Your task to perform on an android device: open app "ColorNote Notepad Notes" Image 0: 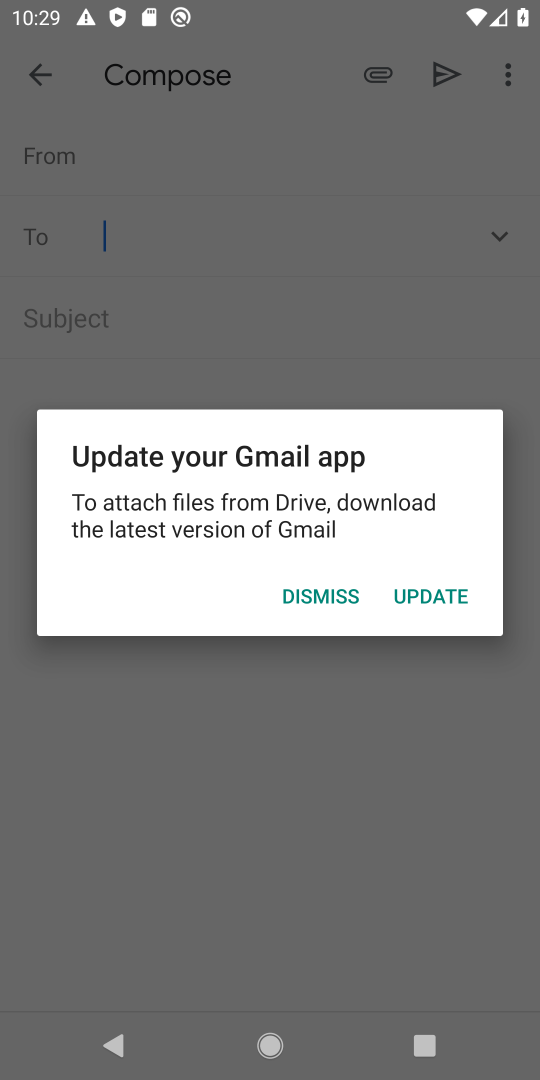
Step 0: click (410, 598)
Your task to perform on an android device: open app "ColorNote Notepad Notes" Image 1: 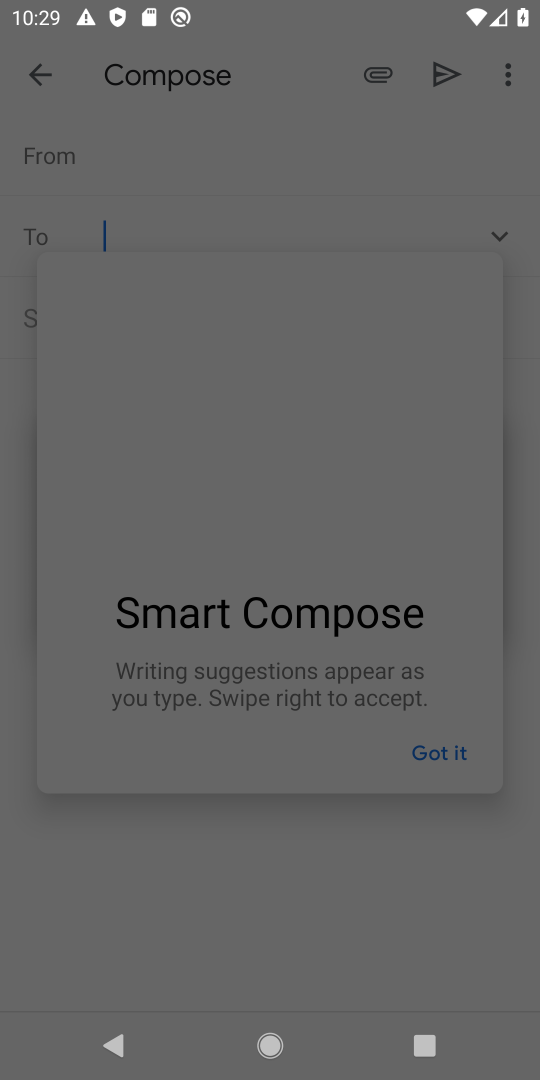
Step 1: press home button
Your task to perform on an android device: open app "ColorNote Notepad Notes" Image 2: 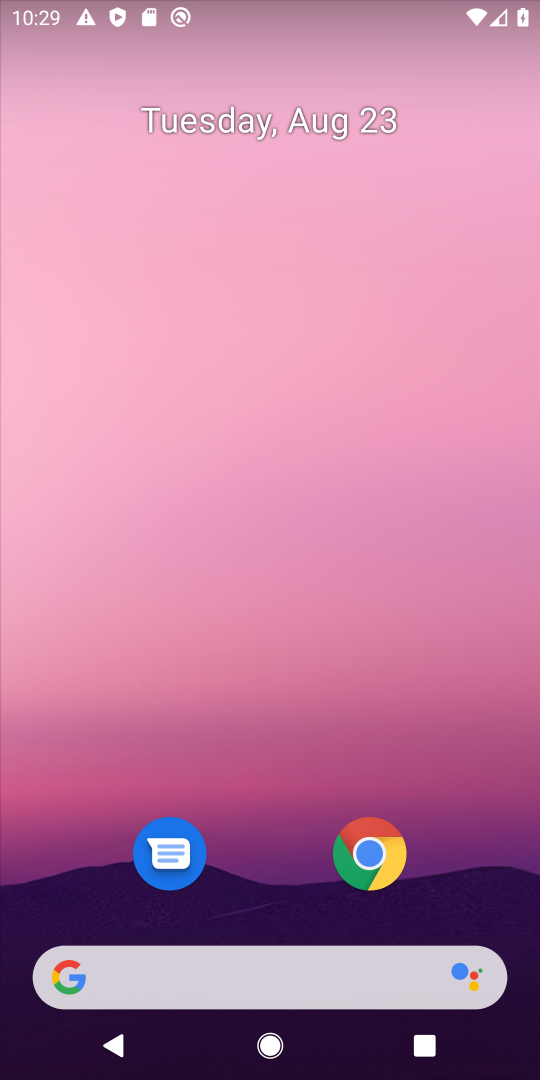
Step 2: drag from (170, 829) to (0, 366)
Your task to perform on an android device: open app "ColorNote Notepad Notes" Image 3: 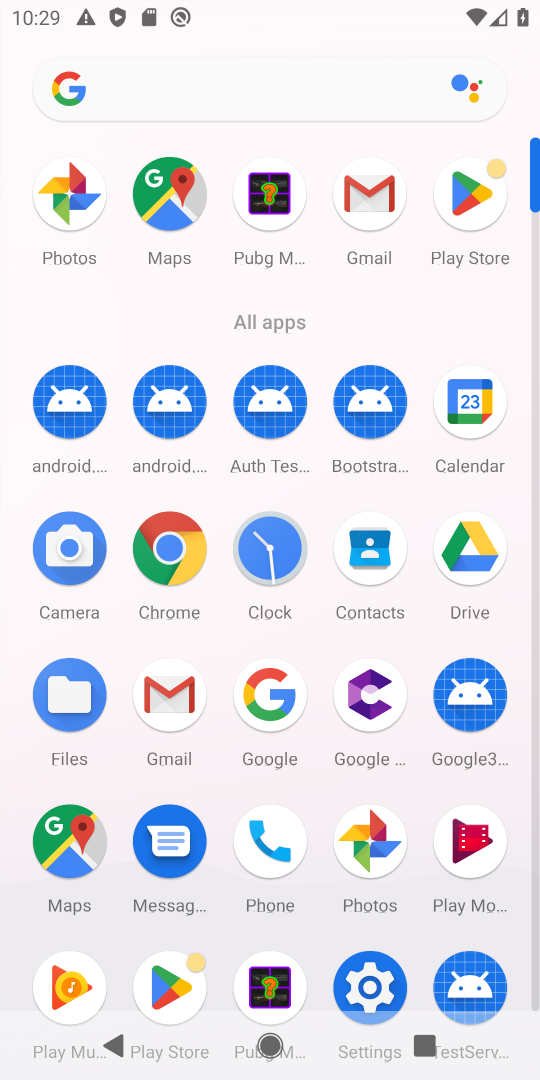
Step 3: click (483, 219)
Your task to perform on an android device: open app "ColorNote Notepad Notes" Image 4: 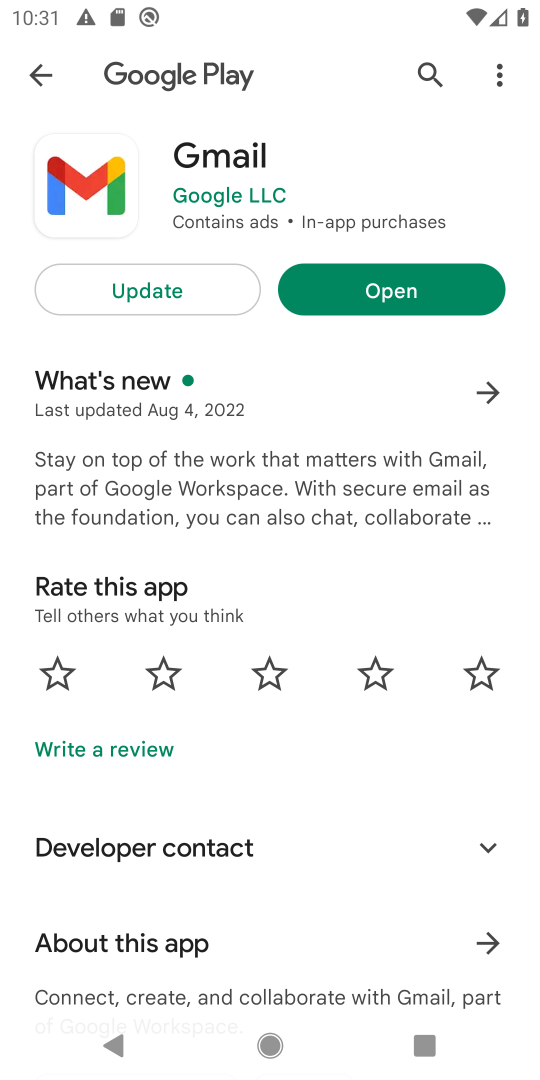
Step 4: press back button
Your task to perform on an android device: open app "ColorNote Notepad Notes" Image 5: 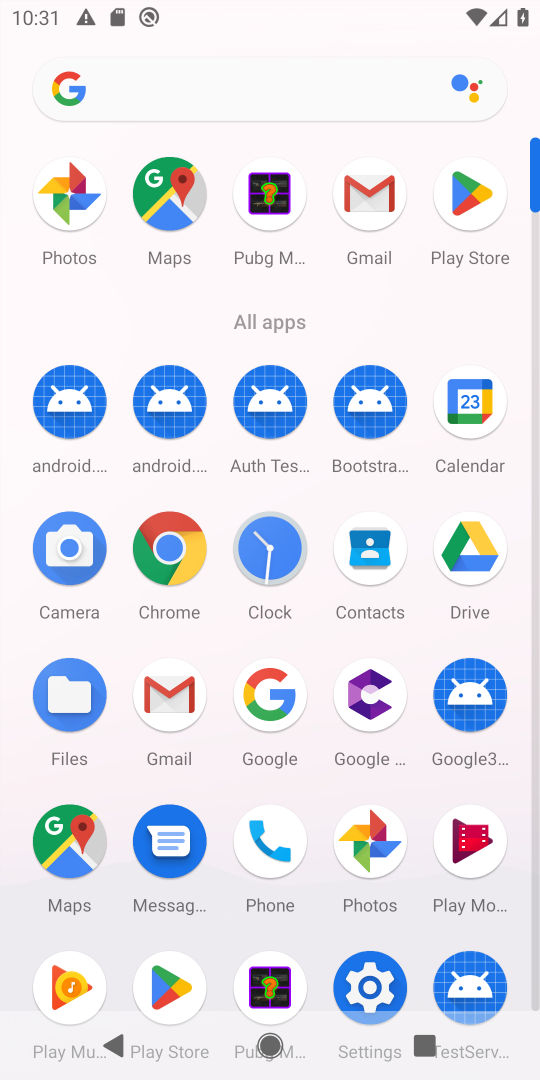
Step 5: click (471, 190)
Your task to perform on an android device: open app "ColorNote Notepad Notes" Image 6: 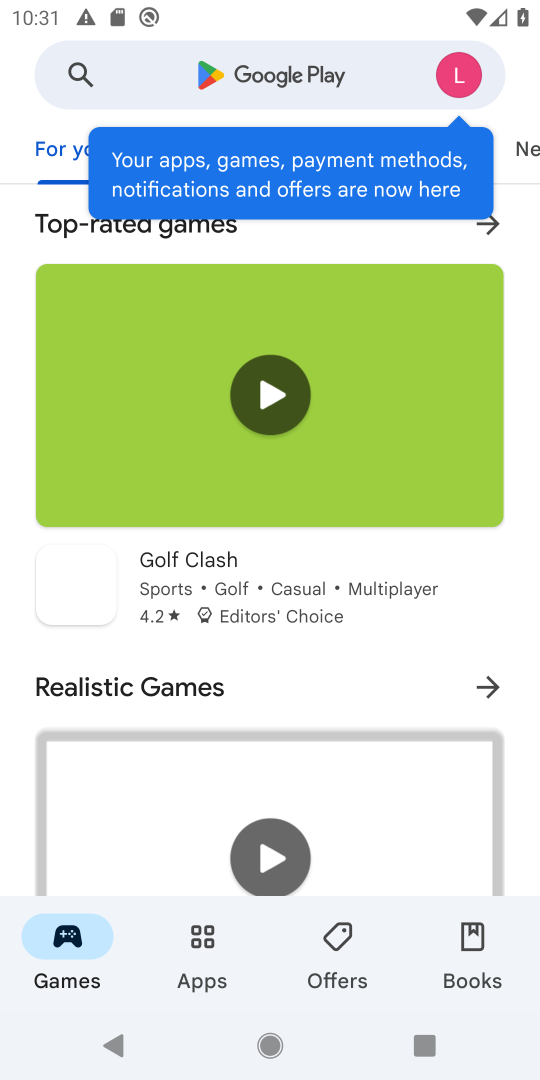
Step 6: click (241, 92)
Your task to perform on an android device: open app "ColorNote Notepad Notes" Image 7: 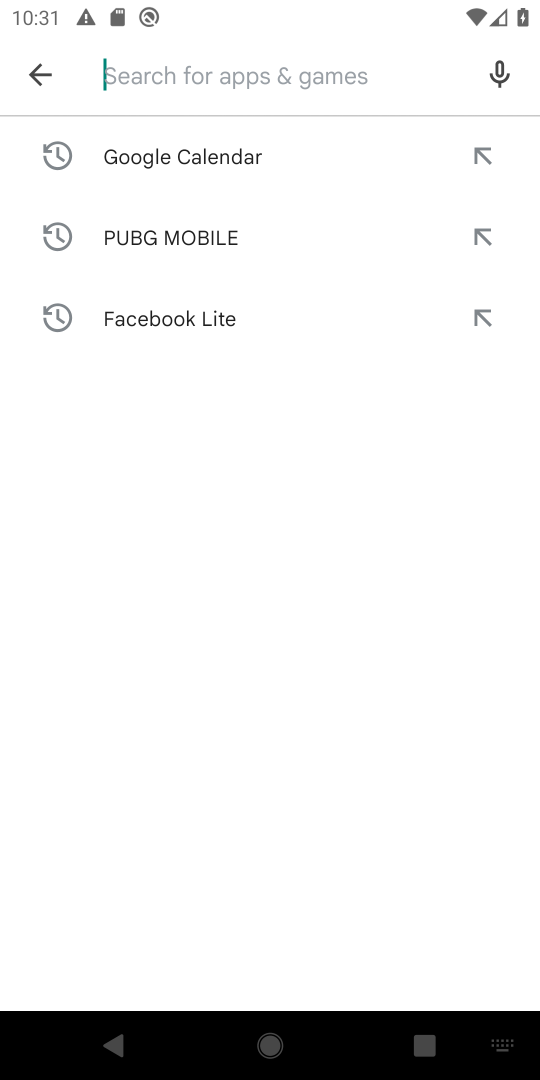
Step 7: type "ColorNote Notepad Notes"
Your task to perform on an android device: open app "ColorNote Notepad Notes" Image 8: 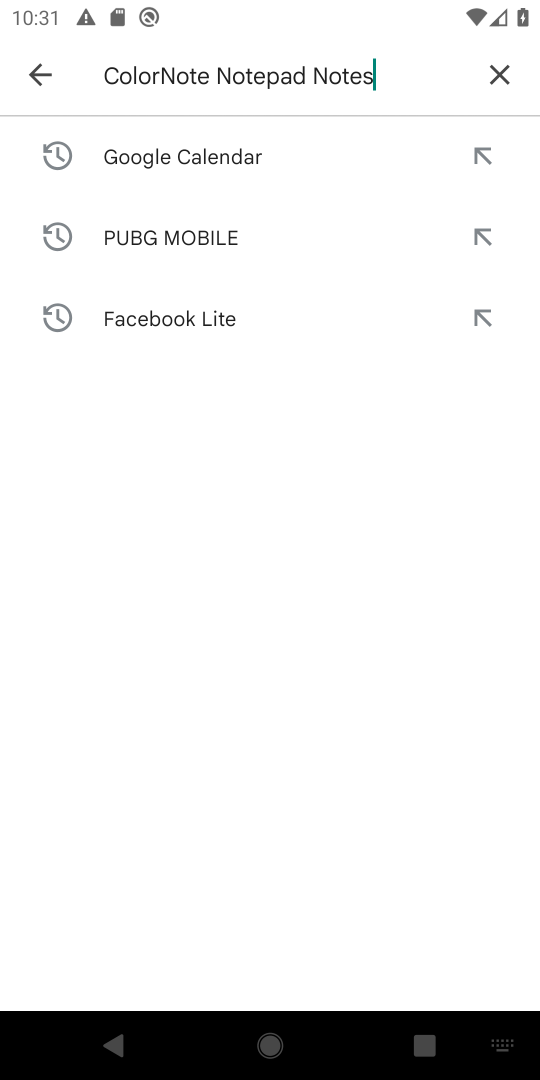
Step 8: press enter
Your task to perform on an android device: open app "ColorNote Notepad Notes" Image 9: 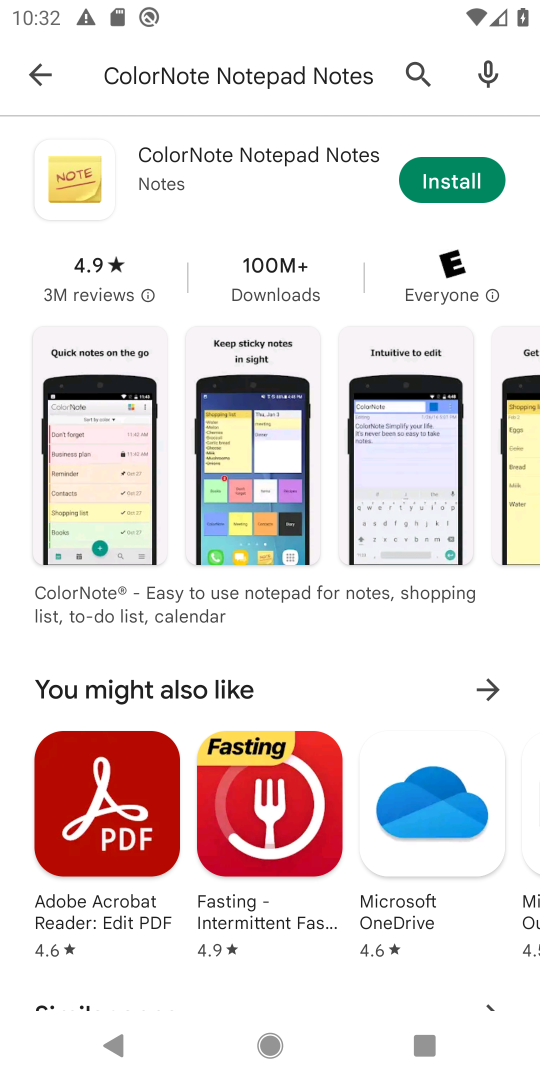
Step 9: task complete